Your task to perform on an android device: Search for usb-a on amazon.com, select the first entry, add it to the cart, then select checkout. Image 0: 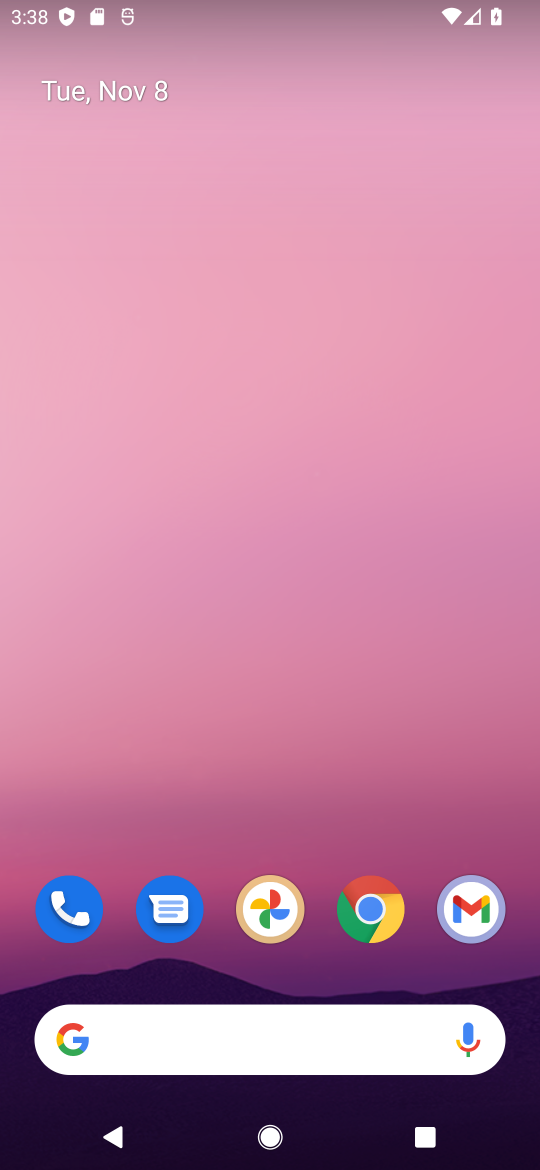
Step 0: click (364, 900)
Your task to perform on an android device: Search for usb-a on amazon.com, select the first entry, add it to the cart, then select checkout. Image 1: 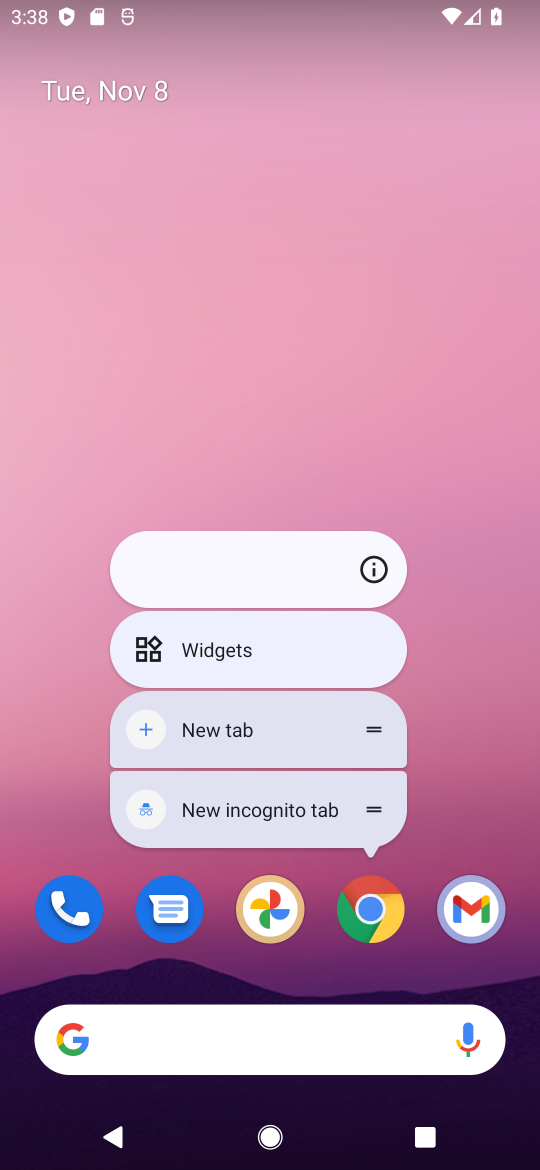
Step 1: click (371, 912)
Your task to perform on an android device: Search for usb-a on amazon.com, select the first entry, add it to the cart, then select checkout. Image 2: 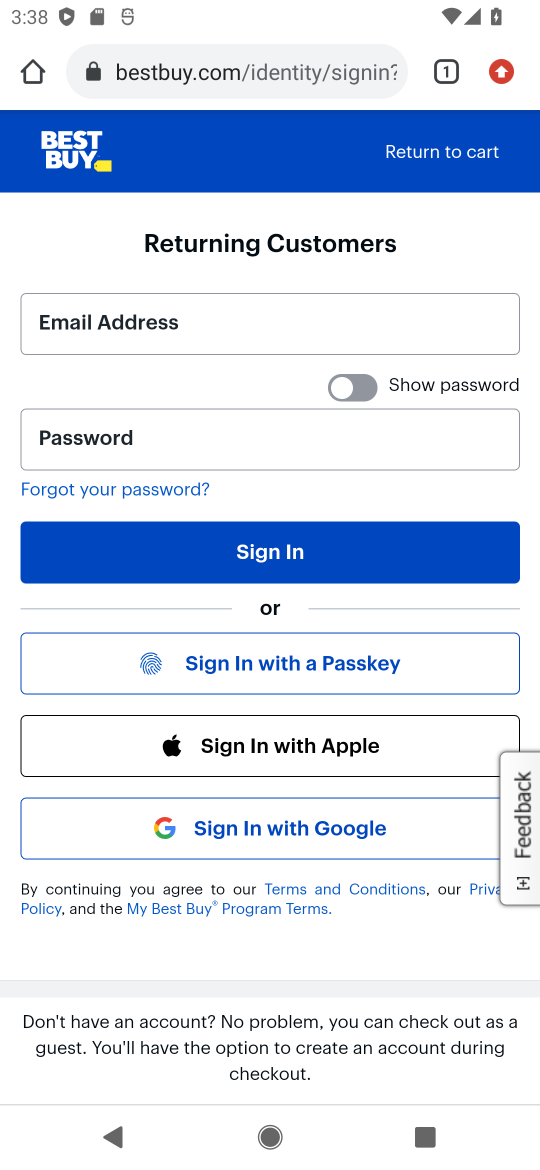
Step 2: click (264, 62)
Your task to perform on an android device: Search for usb-a on amazon.com, select the first entry, add it to the cart, then select checkout. Image 3: 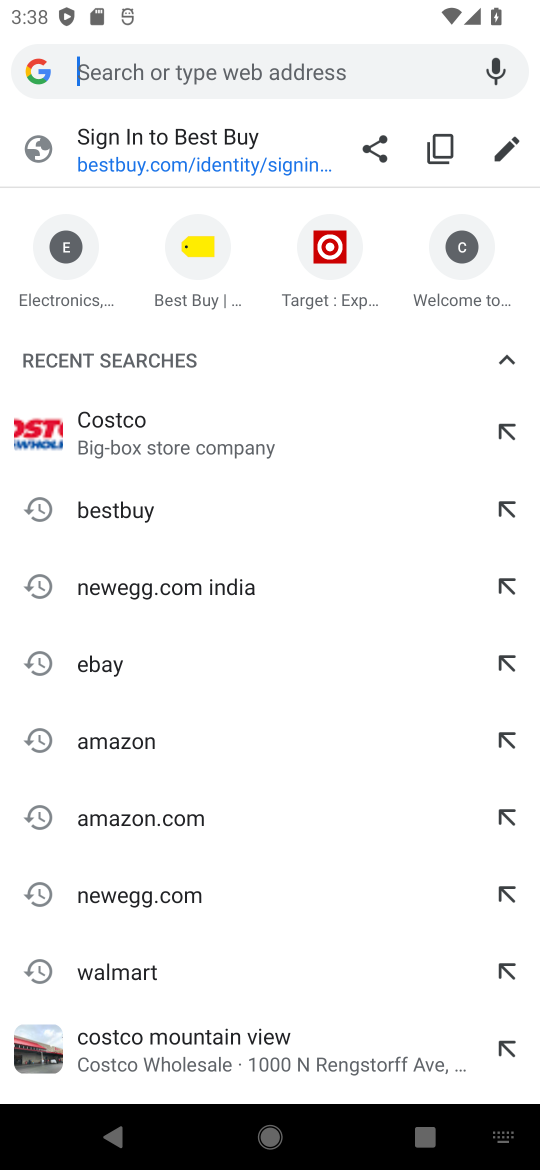
Step 3: click (110, 741)
Your task to perform on an android device: Search for usb-a on amazon.com, select the first entry, add it to the cart, then select checkout. Image 4: 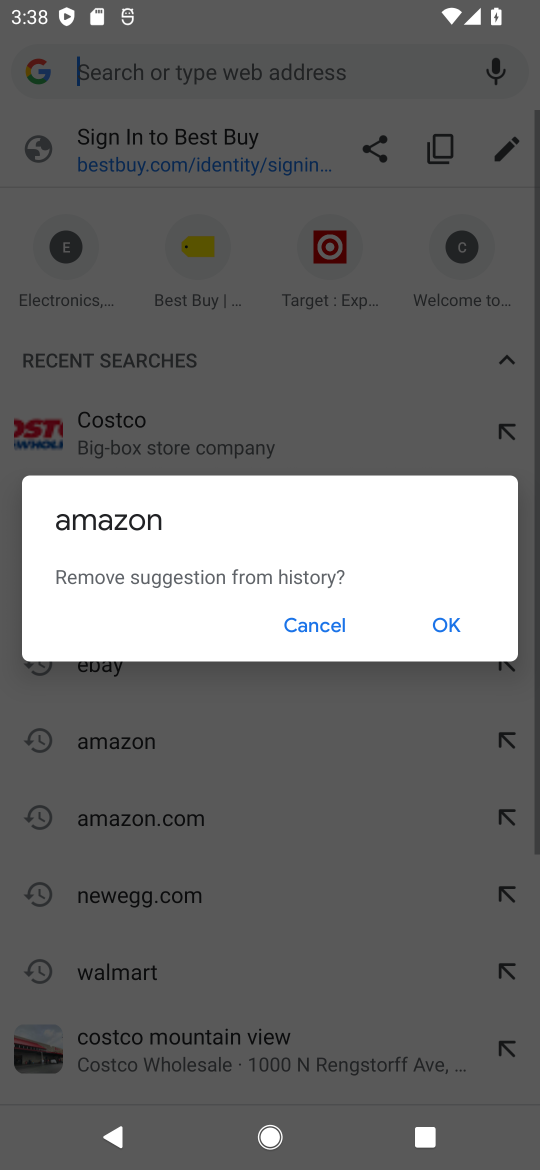
Step 4: click (299, 624)
Your task to perform on an android device: Search for usb-a on amazon.com, select the first entry, add it to the cart, then select checkout. Image 5: 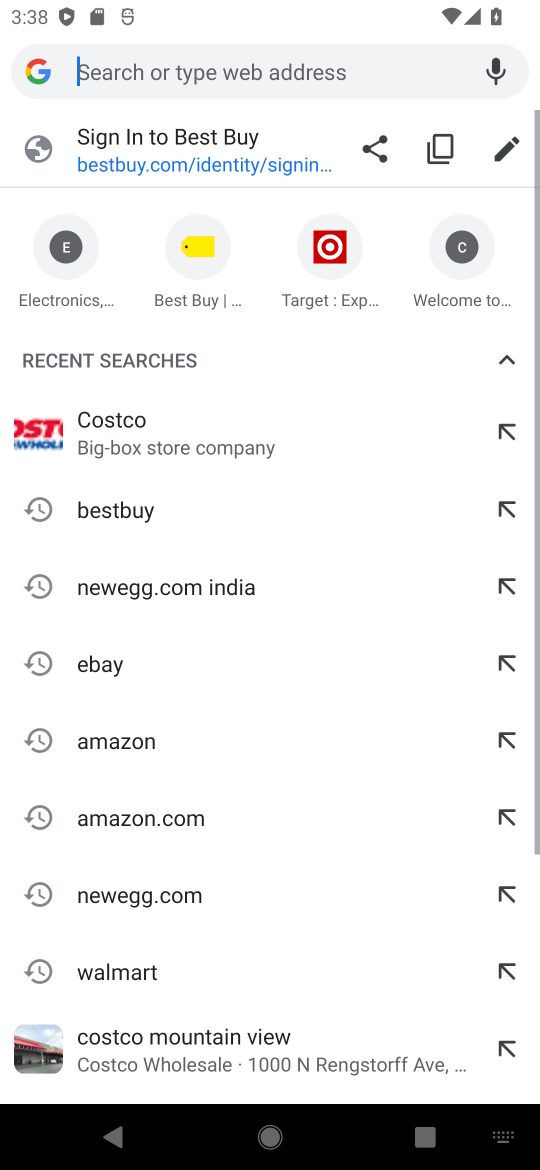
Step 5: click (98, 740)
Your task to perform on an android device: Search for usb-a on amazon.com, select the first entry, add it to the cart, then select checkout. Image 6: 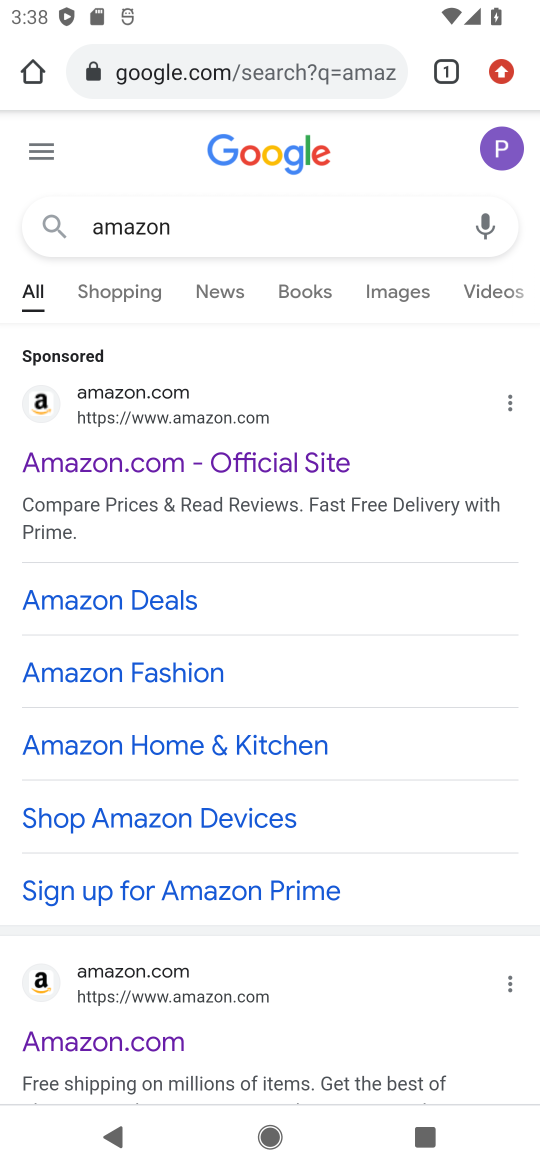
Step 6: click (135, 463)
Your task to perform on an android device: Search for usb-a on amazon.com, select the first entry, add it to the cart, then select checkout. Image 7: 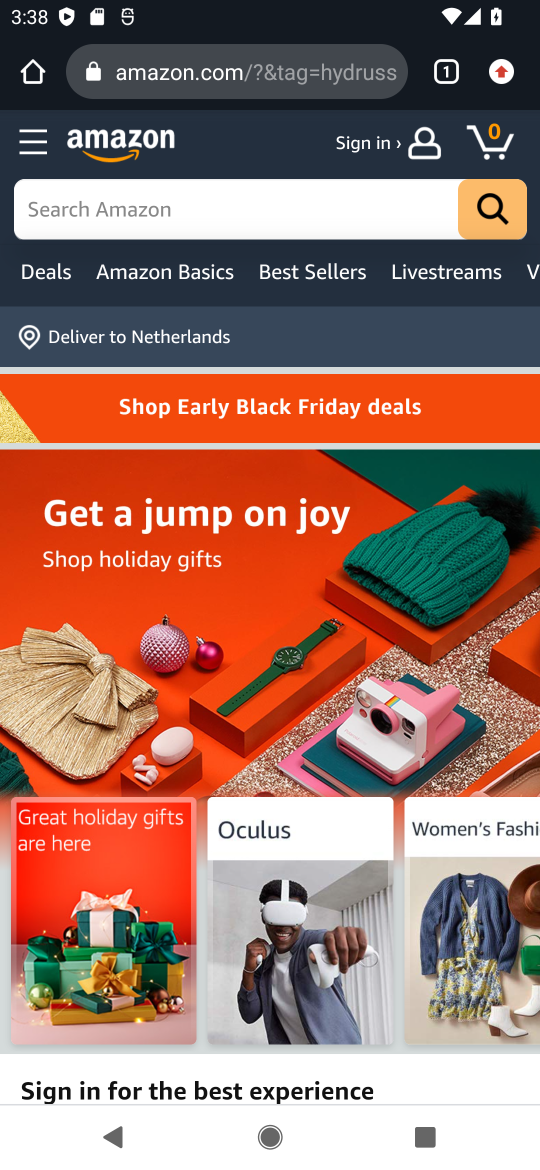
Step 7: click (55, 207)
Your task to perform on an android device: Search for usb-a on amazon.com, select the first entry, add it to the cart, then select checkout. Image 8: 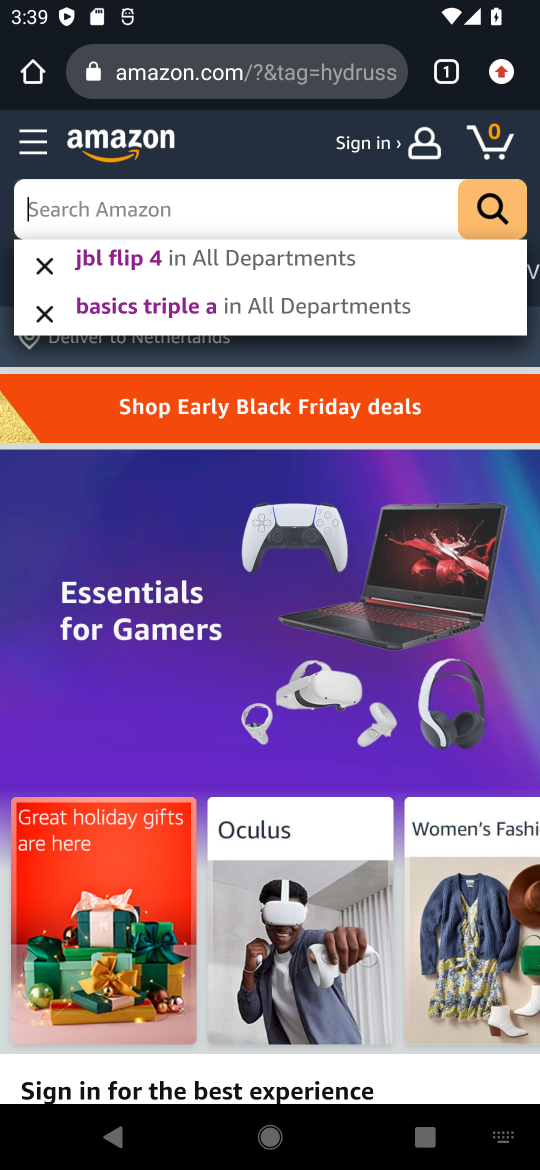
Step 8: type " usb-a"
Your task to perform on an android device: Search for usb-a on amazon.com, select the first entry, add it to the cart, then select checkout. Image 9: 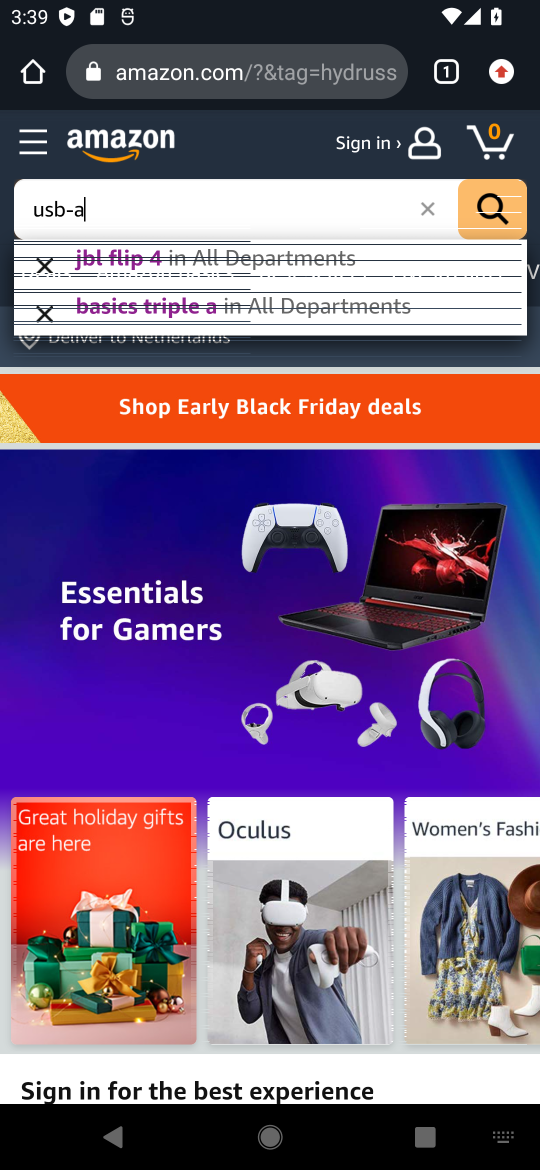
Step 9: press enter
Your task to perform on an android device: Search for usb-a on amazon.com, select the first entry, add it to the cart, then select checkout. Image 10: 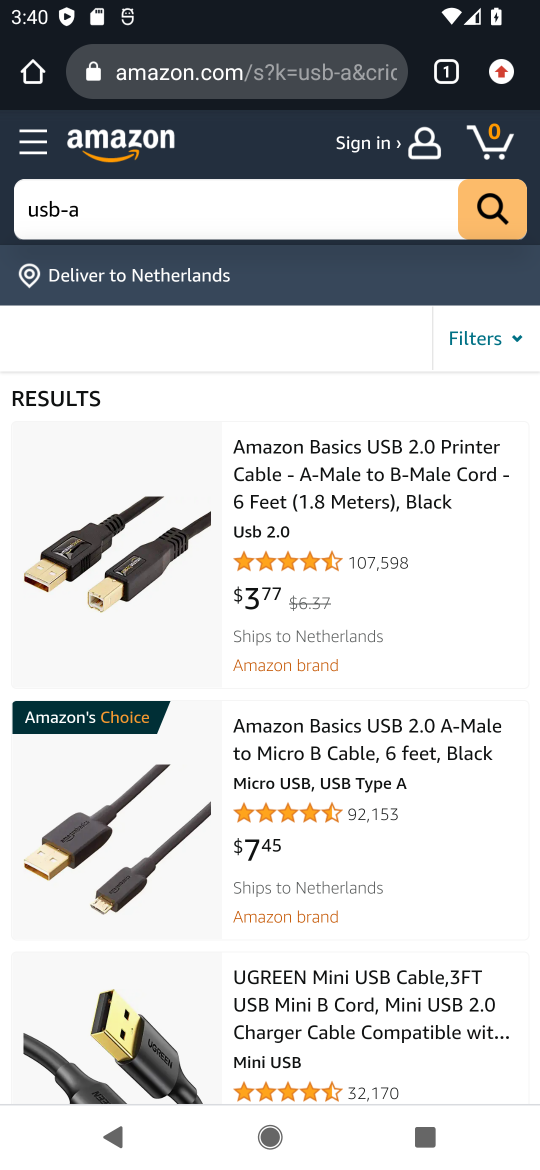
Step 10: task complete